Your task to perform on an android device: Go to Yahoo.com Image 0: 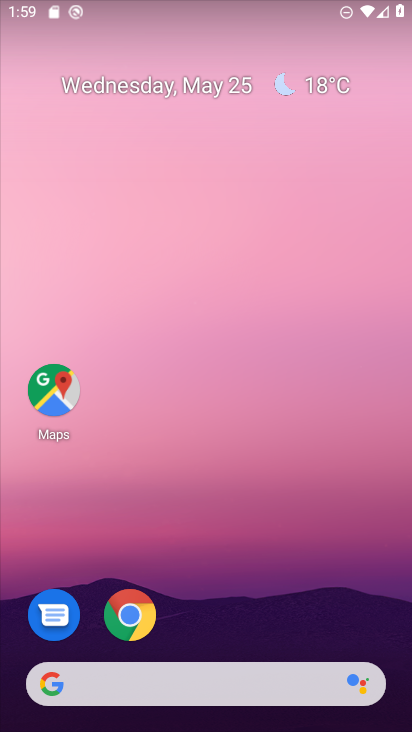
Step 0: click (267, 683)
Your task to perform on an android device: Go to Yahoo.com Image 1: 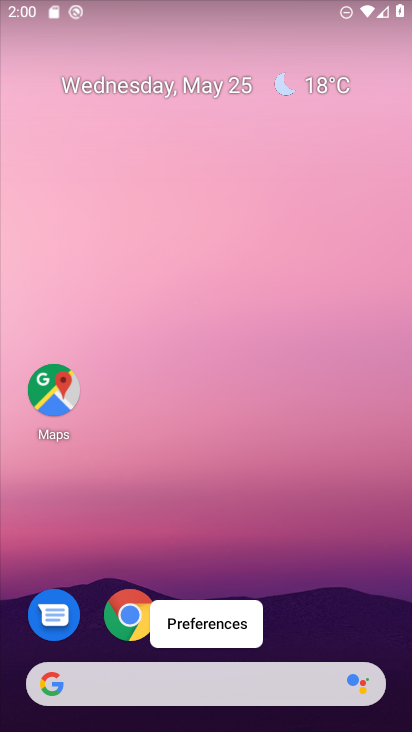
Step 1: click (180, 688)
Your task to perform on an android device: Go to Yahoo.com Image 2: 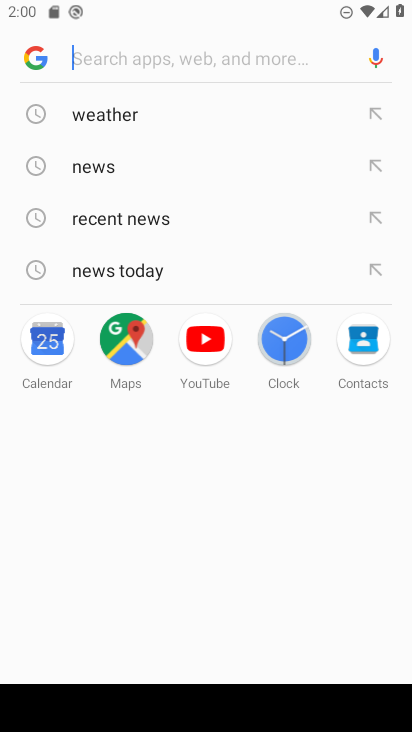
Step 2: type "yahoo.com"
Your task to perform on an android device: Go to Yahoo.com Image 3: 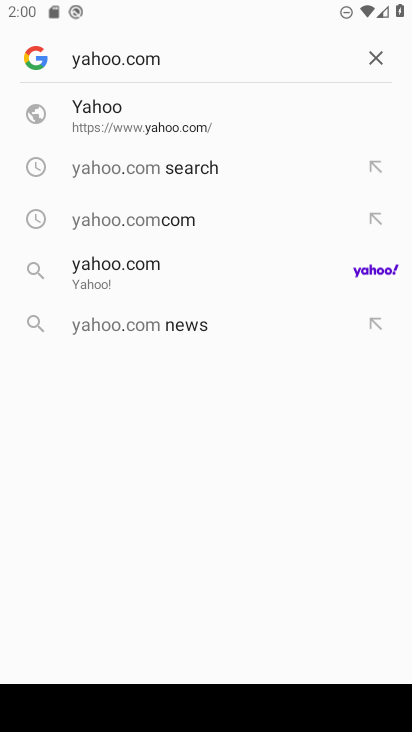
Step 3: click (163, 269)
Your task to perform on an android device: Go to Yahoo.com Image 4: 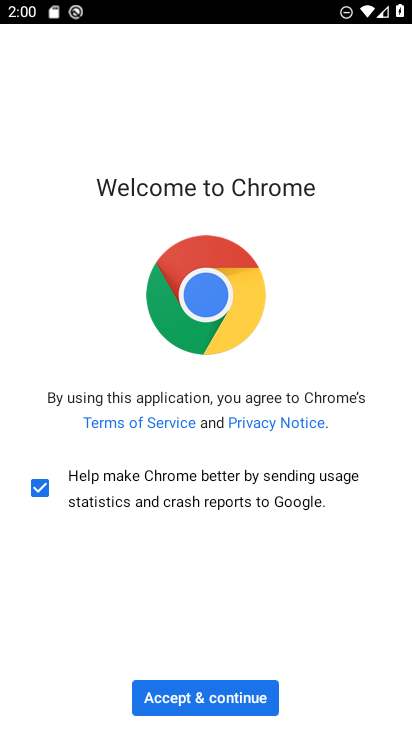
Step 4: click (259, 691)
Your task to perform on an android device: Go to Yahoo.com Image 5: 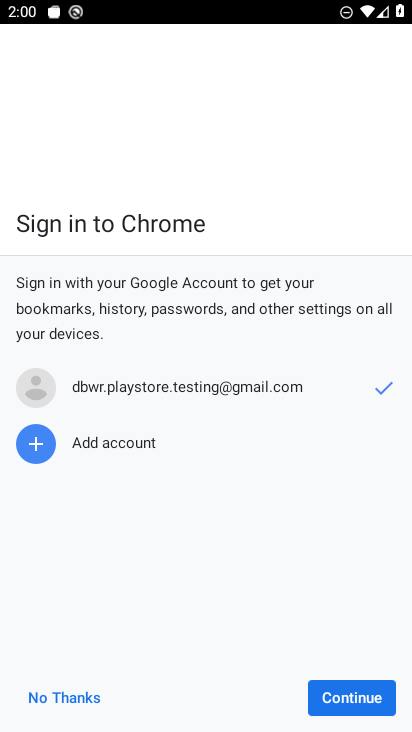
Step 5: click (330, 693)
Your task to perform on an android device: Go to Yahoo.com Image 6: 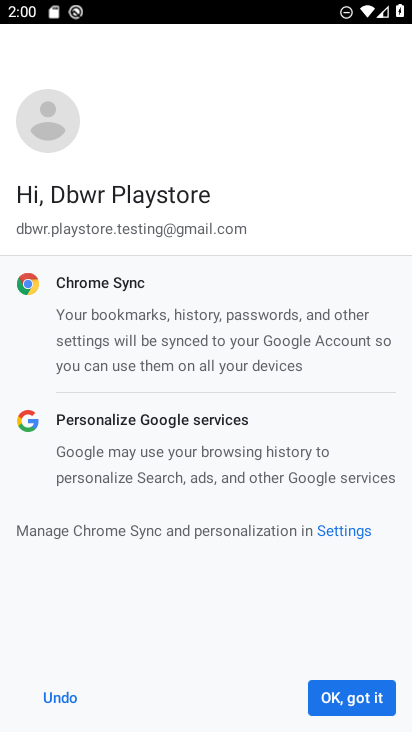
Step 6: click (352, 690)
Your task to perform on an android device: Go to Yahoo.com Image 7: 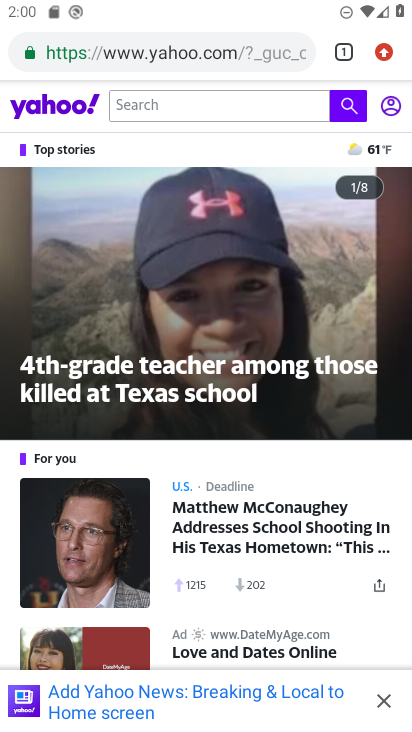
Step 7: task complete